Your task to perform on an android device: turn off improve location accuracy Image 0: 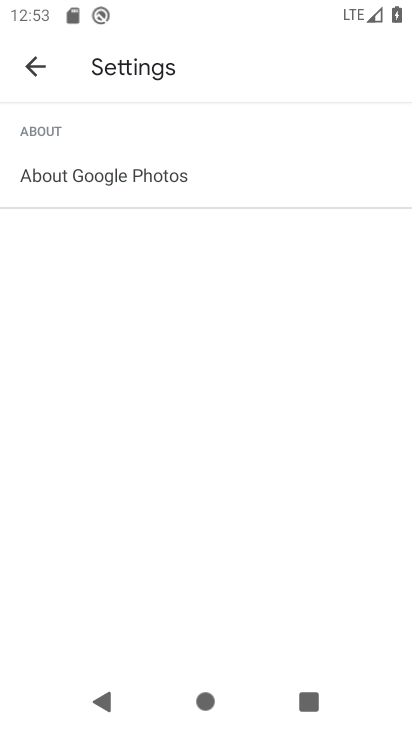
Step 0: press home button
Your task to perform on an android device: turn off improve location accuracy Image 1: 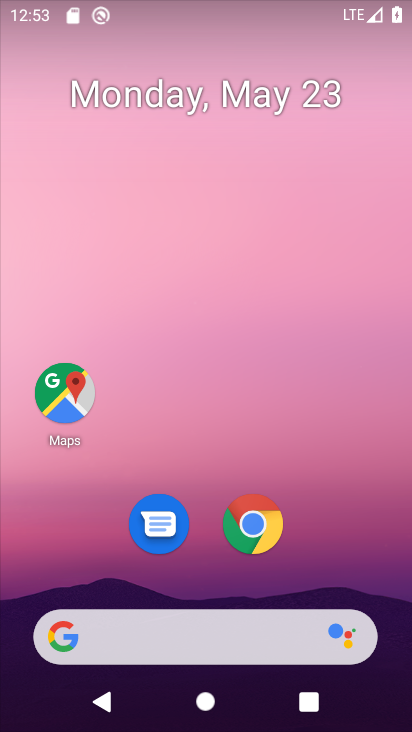
Step 1: drag from (324, 554) to (275, 0)
Your task to perform on an android device: turn off improve location accuracy Image 2: 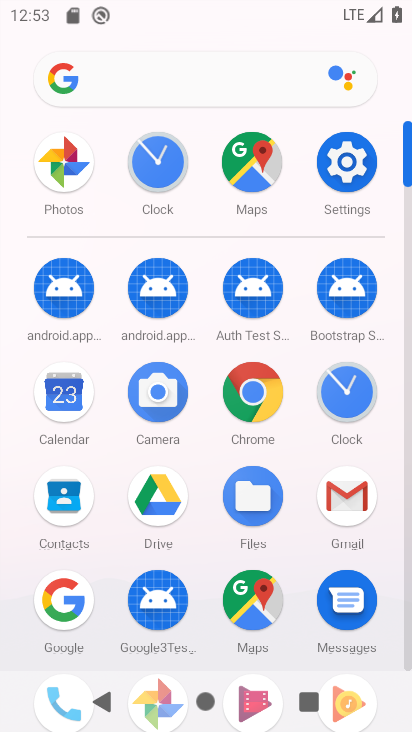
Step 2: click (350, 170)
Your task to perform on an android device: turn off improve location accuracy Image 3: 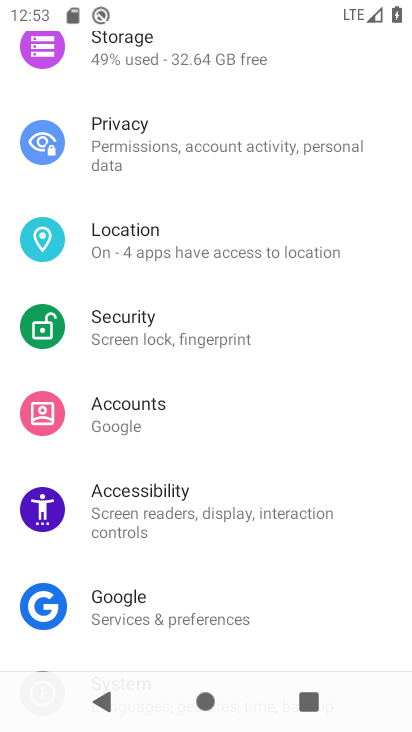
Step 3: click (240, 237)
Your task to perform on an android device: turn off improve location accuracy Image 4: 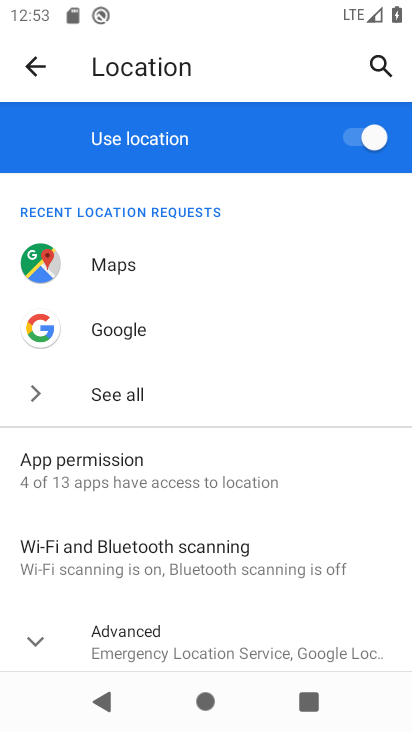
Step 4: click (191, 471)
Your task to perform on an android device: turn off improve location accuracy Image 5: 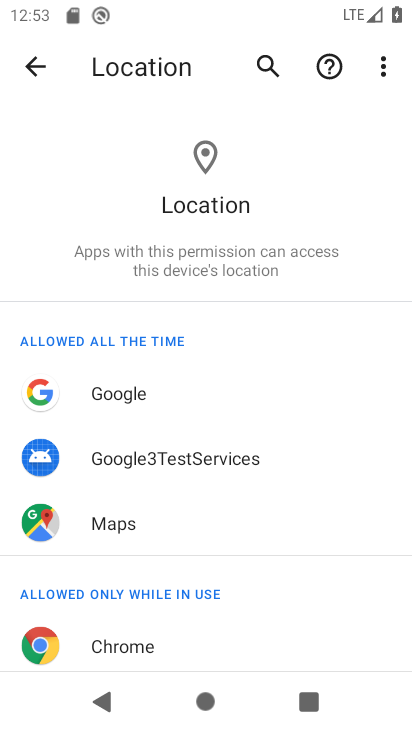
Step 5: drag from (208, 526) to (242, 70)
Your task to perform on an android device: turn off improve location accuracy Image 6: 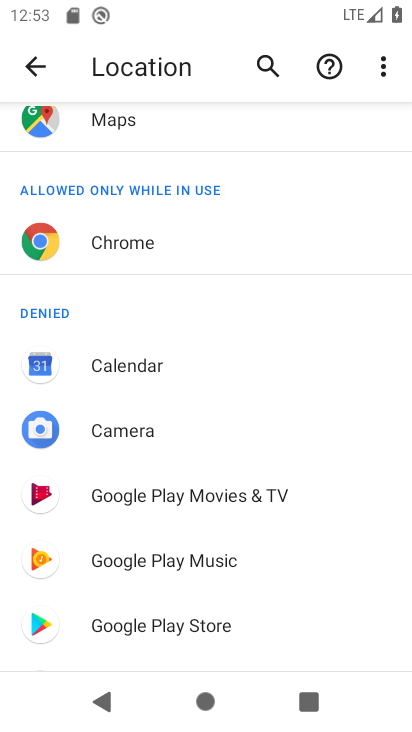
Step 6: click (42, 60)
Your task to perform on an android device: turn off improve location accuracy Image 7: 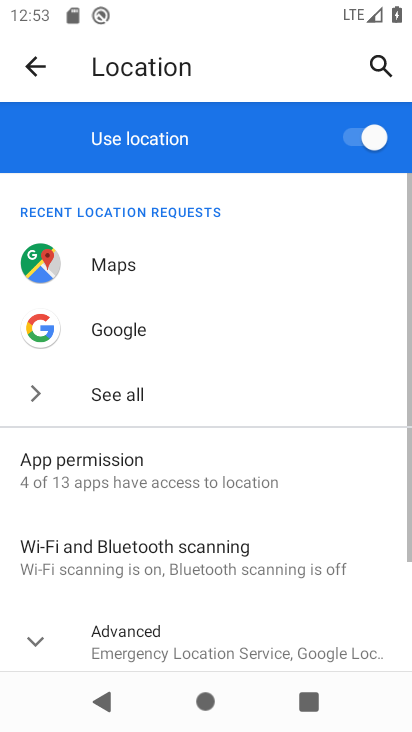
Step 7: drag from (251, 485) to (295, 314)
Your task to perform on an android device: turn off improve location accuracy Image 8: 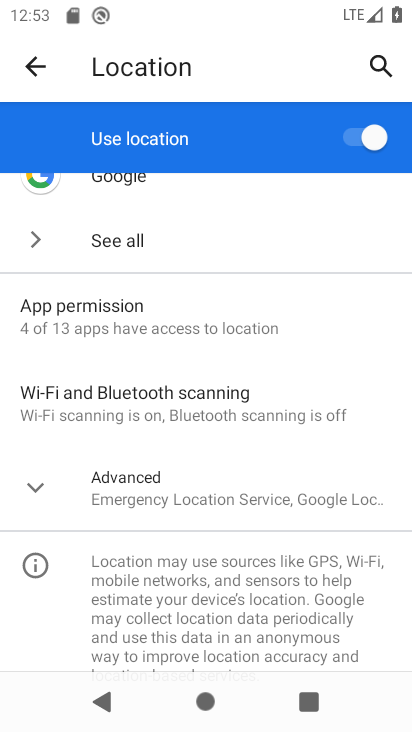
Step 8: click (34, 484)
Your task to perform on an android device: turn off improve location accuracy Image 9: 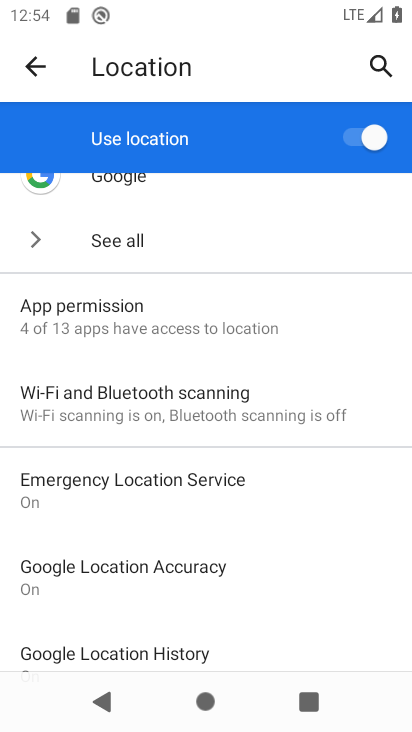
Step 9: click (217, 573)
Your task to perform on an android device: turn off improve location accuracy Image 10: 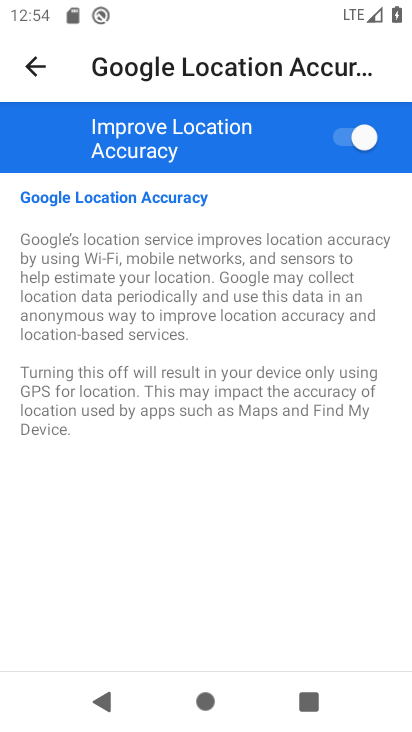
Step 10: click (341, 132)
Your task to perform on an android device: turn off improve location accuracy Image 11: 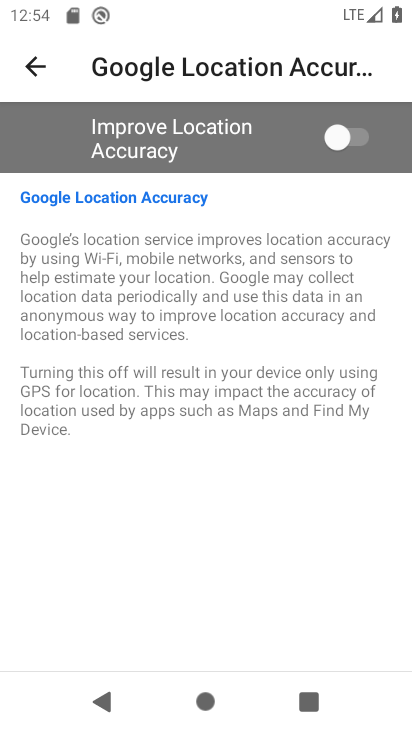
Step 11: task complete